Your task to perform on an android device: turn on javascript in the chrome app Image 0: 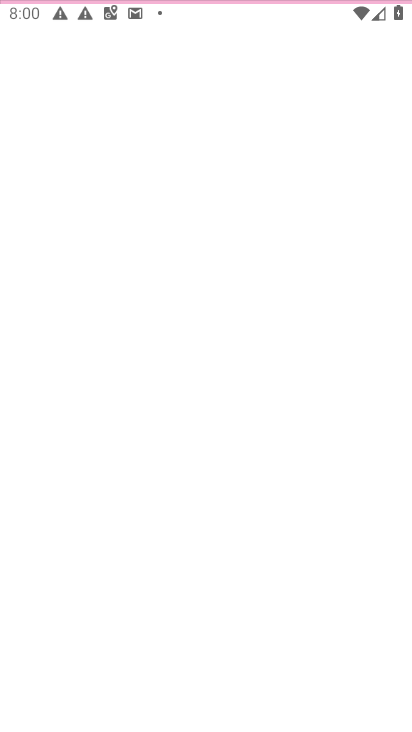
Step 0: press home button
Your task to perform on an android device: turn on javascript in the chrome app Image 1: 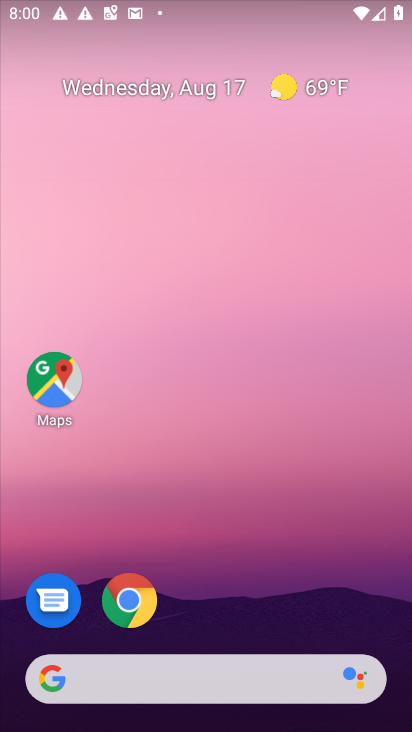
Step 1: click (127, 599)
Your task to perform on an android device: turn on javascript in the chrome app Image 2: 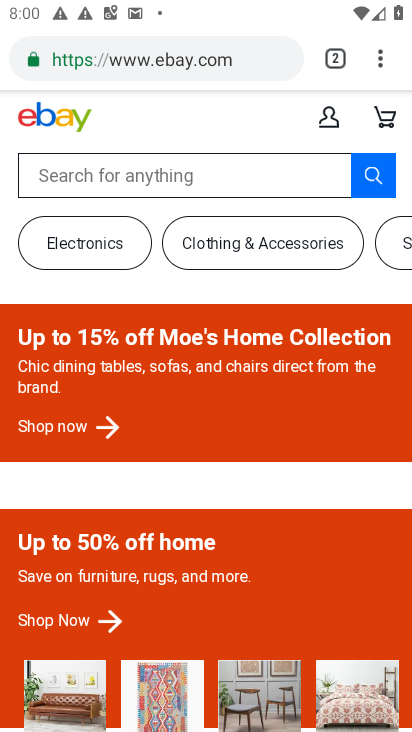
Step 2: drag from (379, 64) to (171, 621)
Your task to perform on an android device: turn on javascript in the chrome app Image 3: 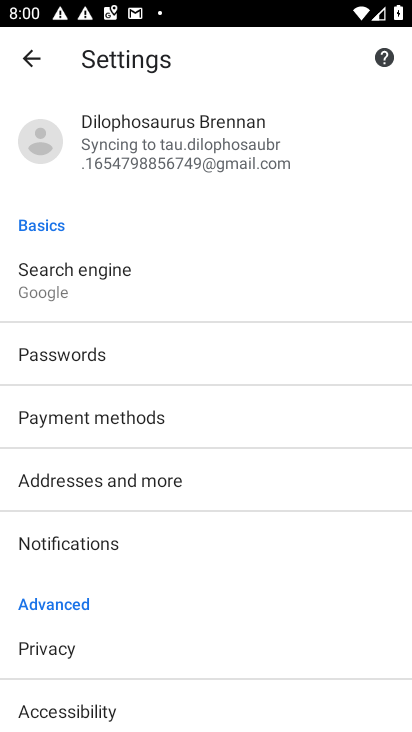
Step 3: drag from (139, 599) to (128, 231)
Your task to perform on an android device: turn on javascript in the chrome app Image 4: 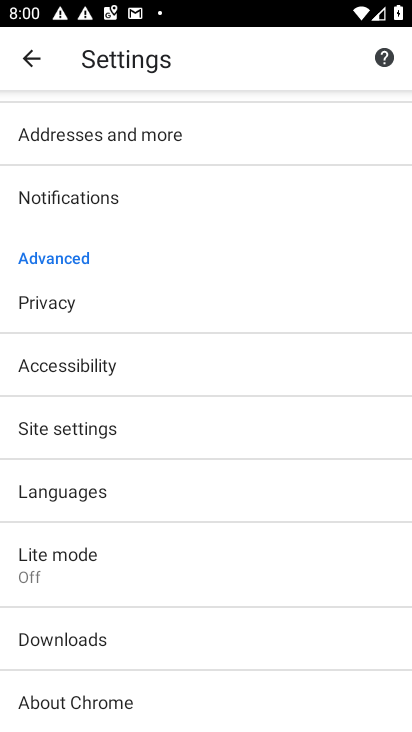
Step 4: click (101, 442)
Your task to perform on an android device: turn on javascript in the chrome app Image 5: 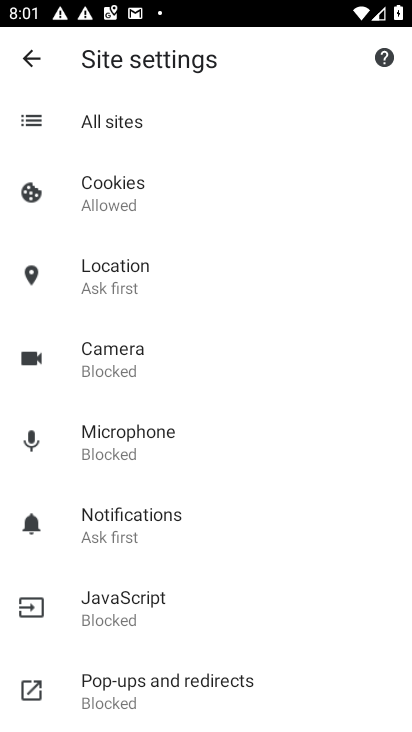
Step 5: click (153, 604)
Your task to perform on an android device: turn on javascript in the chrome app Image 6: 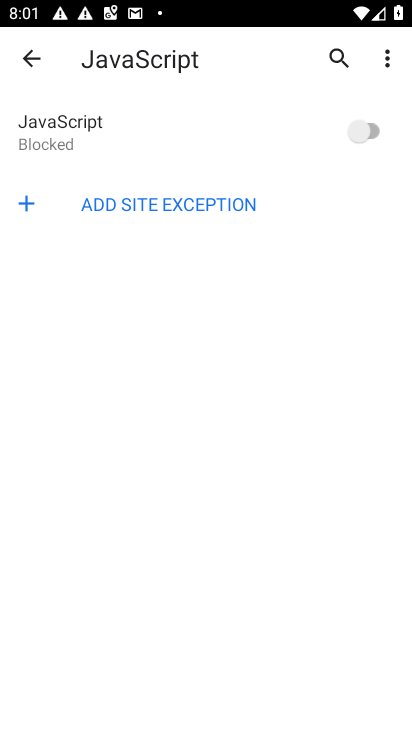
Step 6: click (366, 128)
Your task to perform on an android device: turn on javascript in the chrome app Image 7: 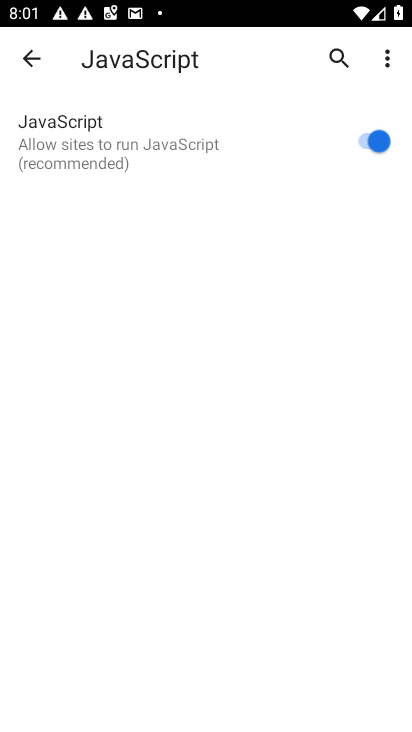
Step 7: task complete